Your task to perform on an android device: open sync settings in chrome Image 0: 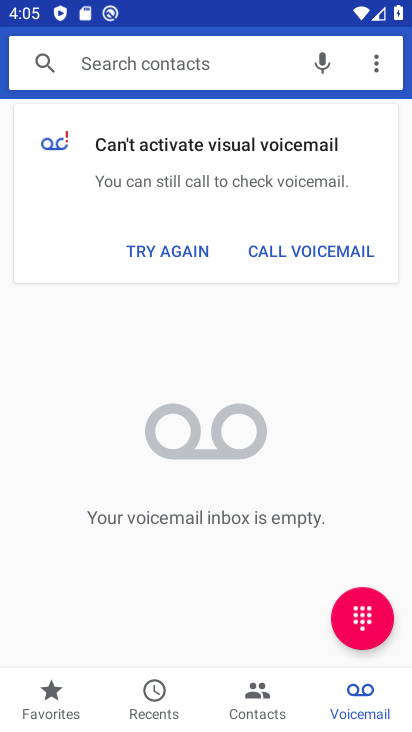
Step 0: press home button
Your task to perform on an android device: open sync settings in chrome Image 1: 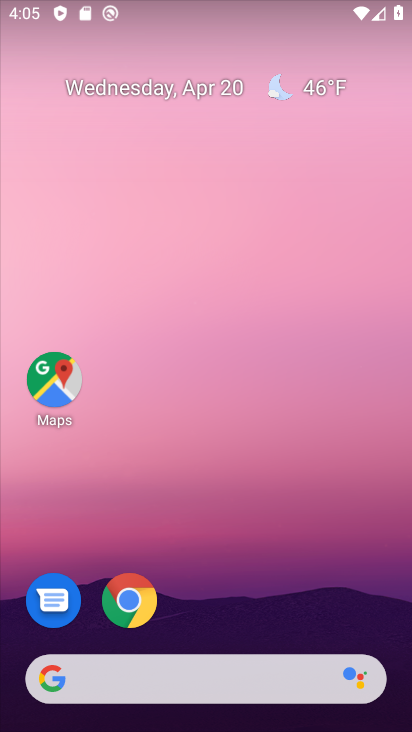
Step 1: click (125, 588)
Your task to perform on an android device: open sync settings in chrome Image 2: 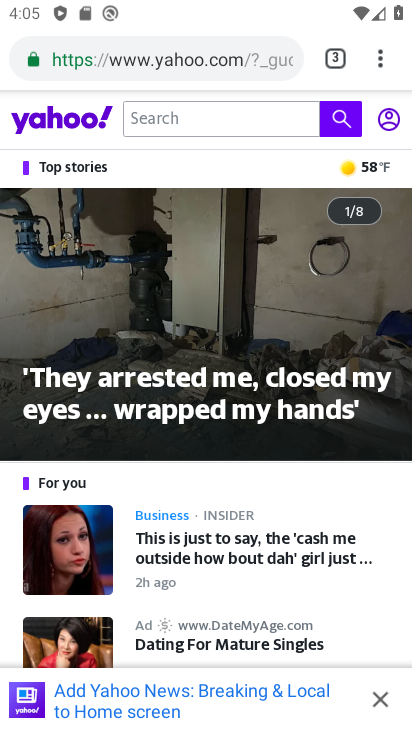
Step 2: click (374, 57)
Your task to perform on an android device: open sync settings in chrome Image 3: 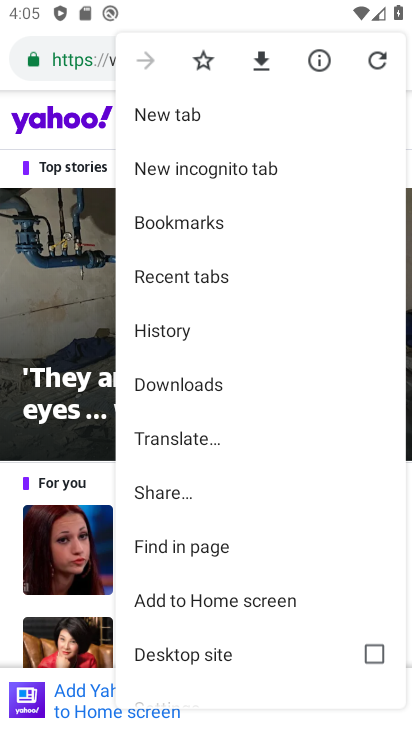
Step 3: drag from (242, 574) to (221, 222)
Your task to perform on an android device: open sync settings in chrome Image 4: 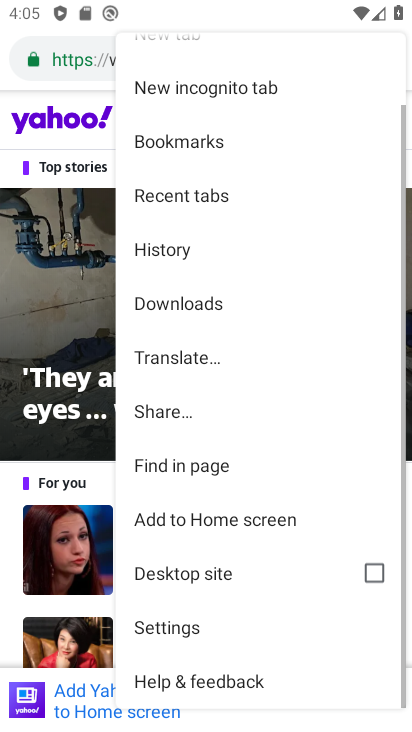
Step 4: click (203, 626)
Your task to perform on an android device: open sync settings in chrome Image 5: 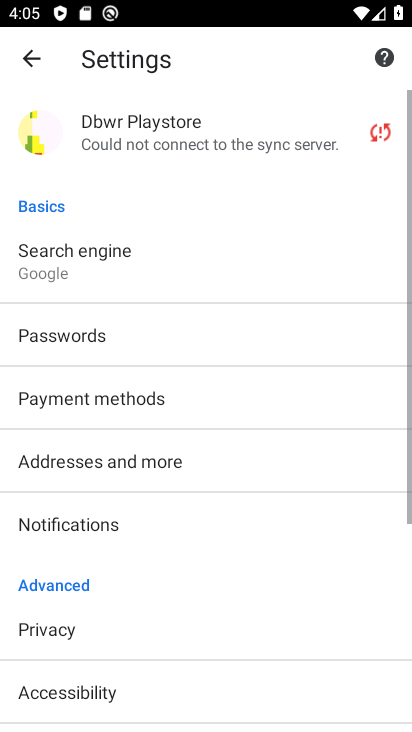
Step 5: drag from (160, 624) to (180, 180)
Your task to perform on an android device: open sync settings in chrome Image 6: 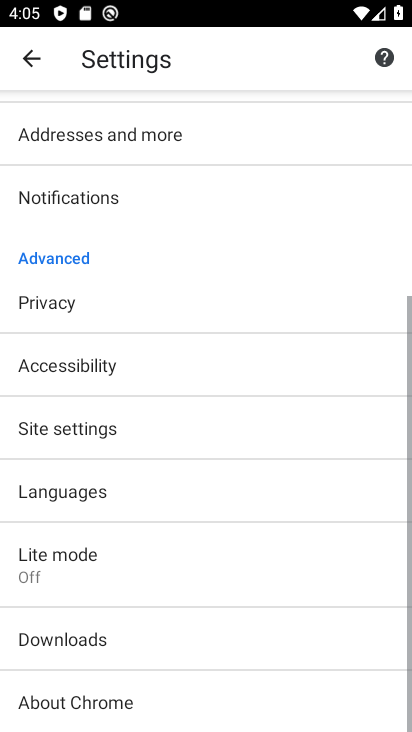
Step 6: click (126, 434)
Your task to perform on an android device: open sync settings in chrome Image 7: 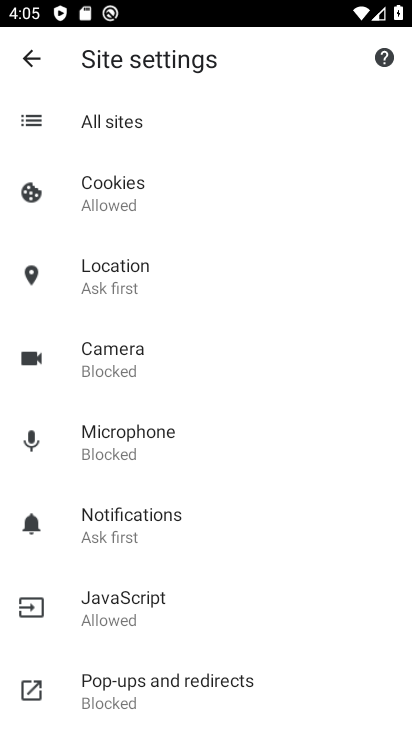
Step 7: drag from (208, 523) to (192, 185)
Your task to perform on an android device: open sync settings in chrome Image 8: 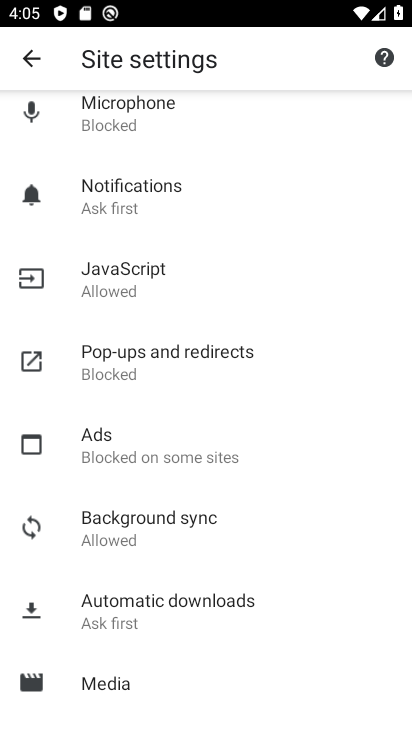
Step 8: click (161, 532)
Your task to perform on an android device: open sync settings in chrome Image 9: 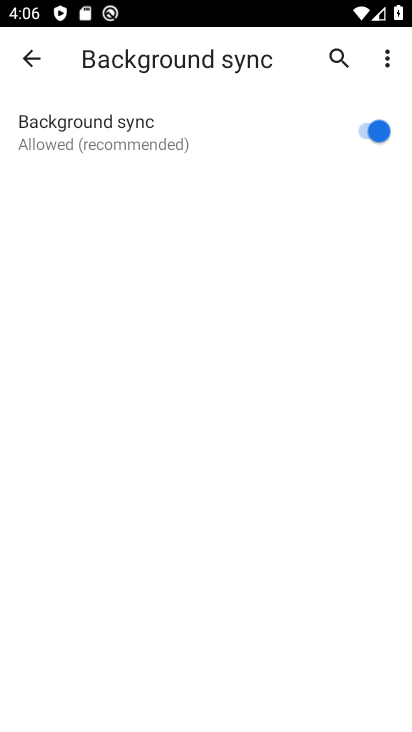
Step 9: task complete